Your task to perform on an android device: Search for "logitech g910" on walmart.com, select the first entry, and add it to the cart. Image 0: 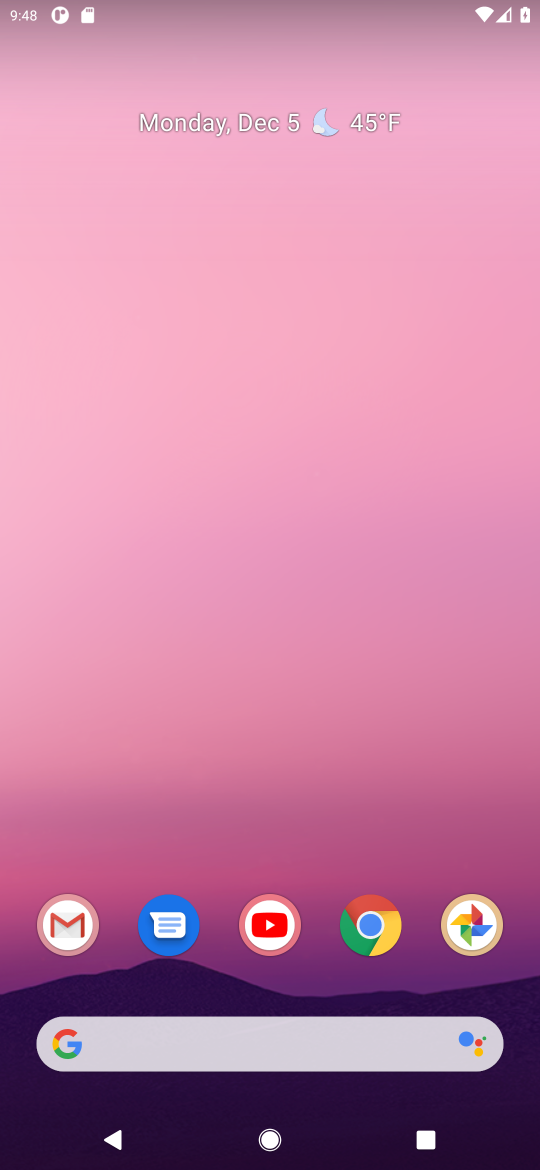
Step 0: click (375, 929)
Your task to perform on an android device: Search for "logitech g910" on walmart.com, select the first entry, and add it to the cart. Image 1: 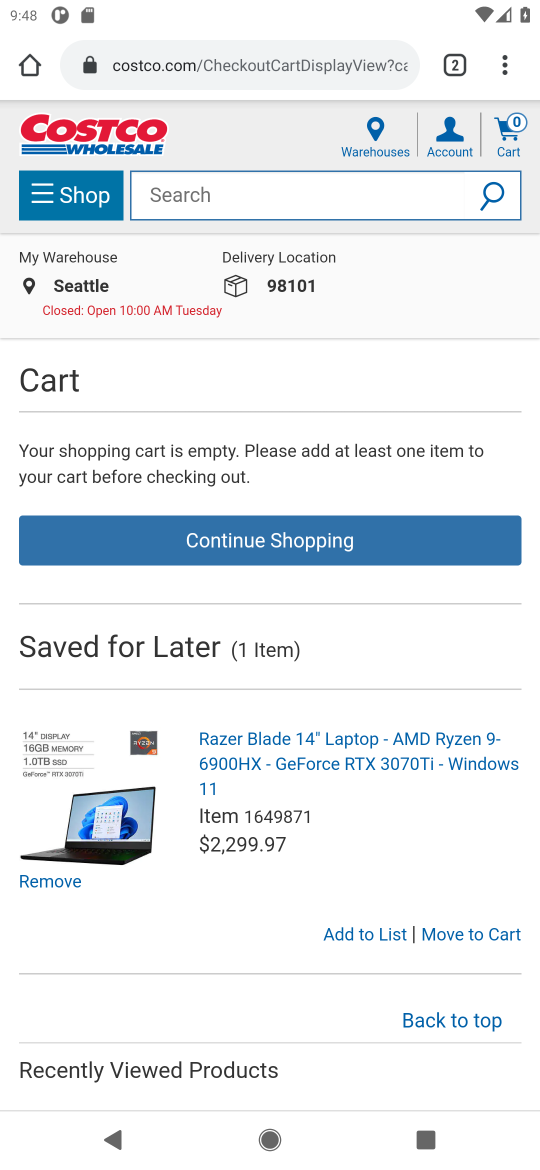
Step 1: click (249, 68)
Your task to perform on an android device: Search for "logitech g910" on walmart.com, select the first entry, and add it to the cart. Image 2: 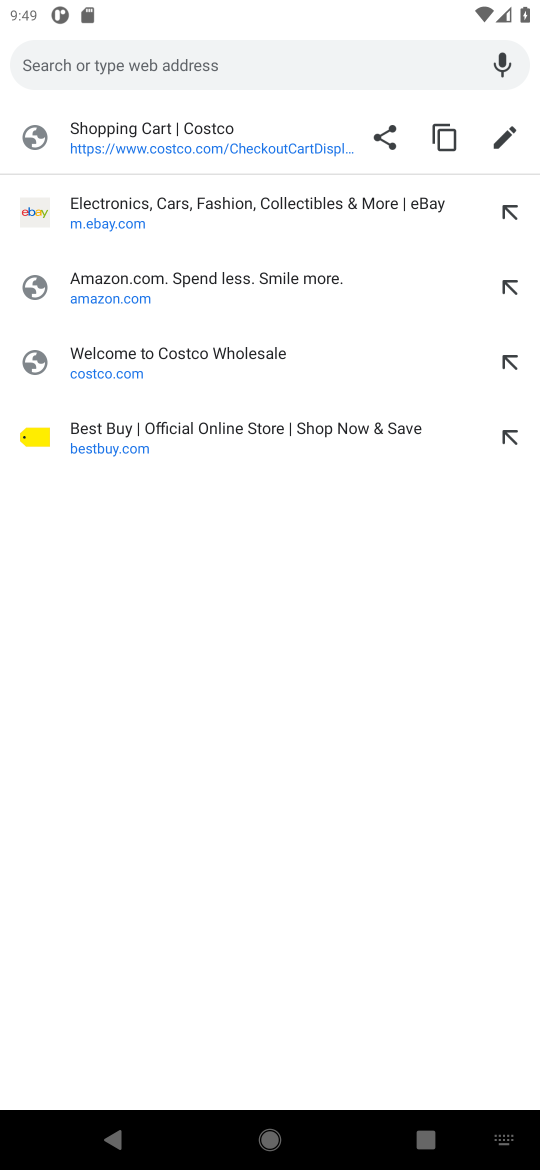
Step 2: type "walmart.com"
Your task to perform on an android device: Search for "logitech g910" on walmart.com, select the first entry, and add it to the cart. Image 3: 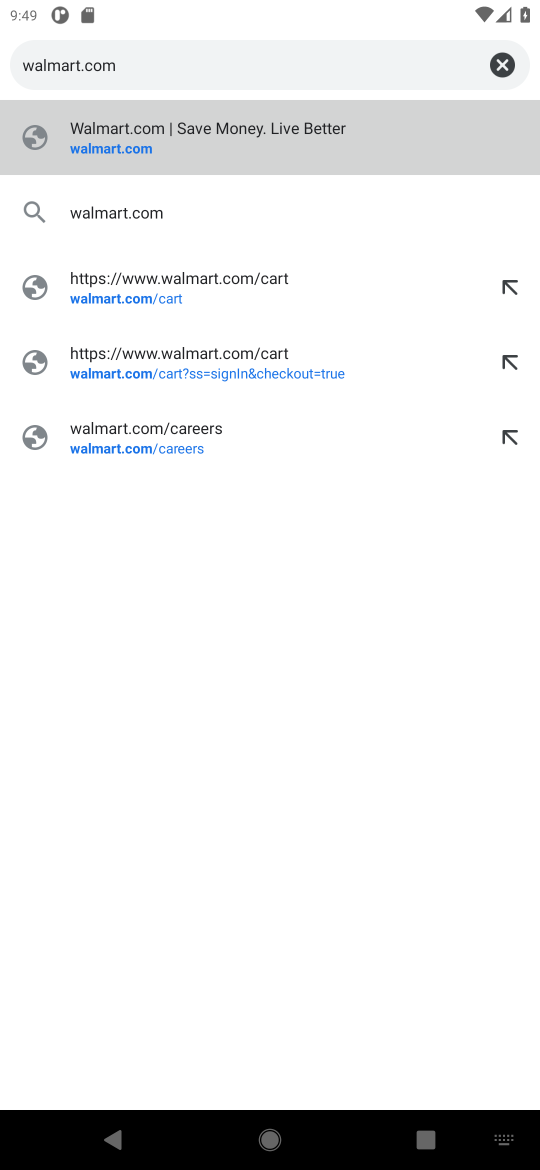
Step 3: click (117, 164)
Your task to perform on an android device: Search for "logitech g910" on walmart.com, select the first entry, and add it to the cart. Image 4: 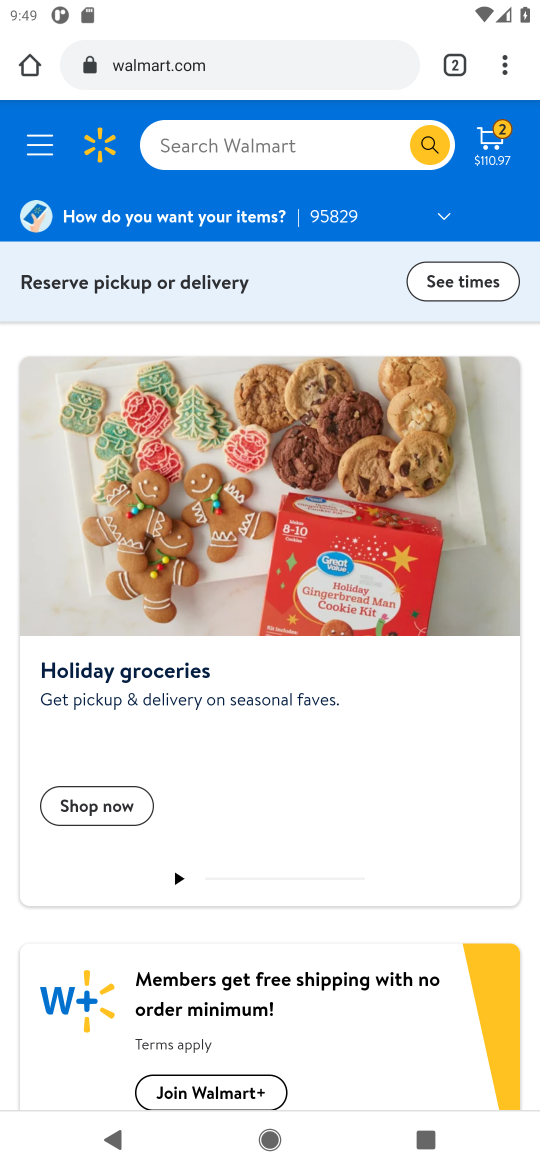
Step 4: click (201, 154)
Your task to perform on an android device: Search for "logitech g910" on walmart.com, select the first entry, and add it to the cart. Image 5: 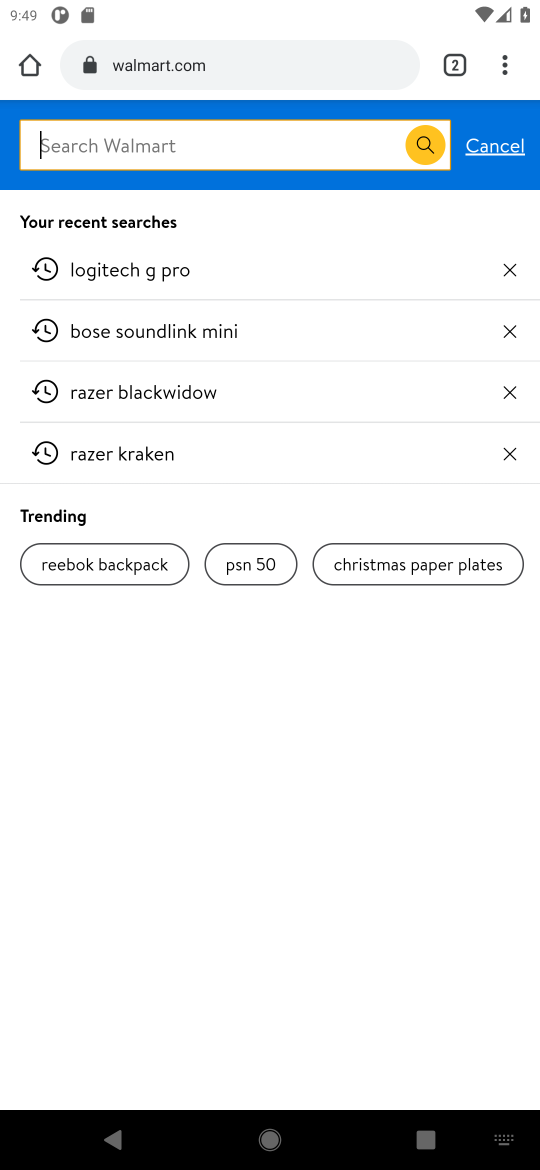
Step 5: type "logitech g910"
Your task to perform on an android device: Search for "logitech g910" on walmart.com, select the first entry, and add it to the cart. Image 6: 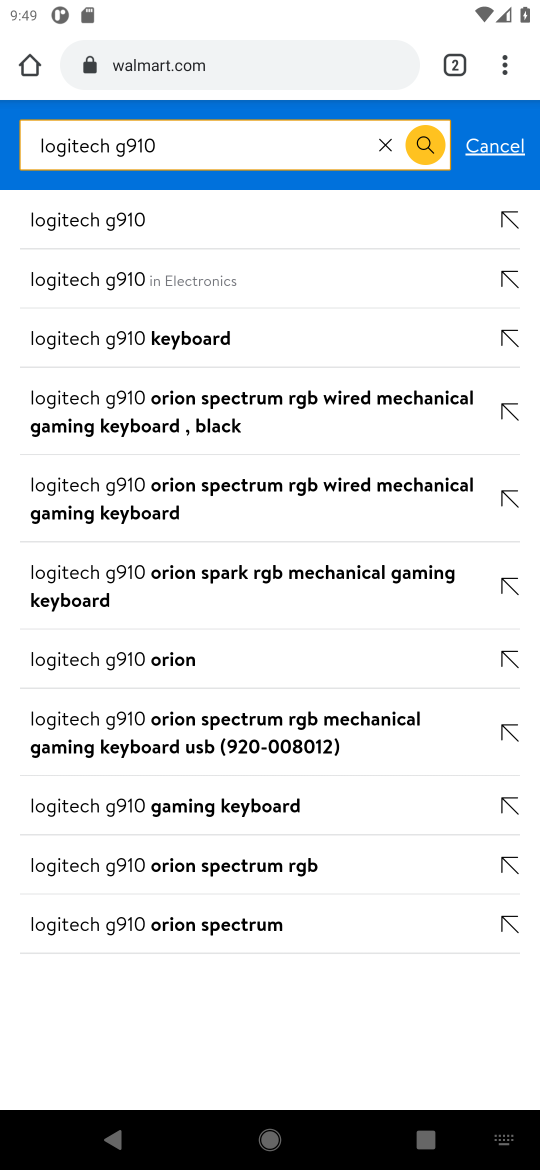
Step 6: click (96, 232)
Your task to perform on an android device: Search for "logitech g910" on walmart.com, select the first entry, and add it to the cart. Image 7: 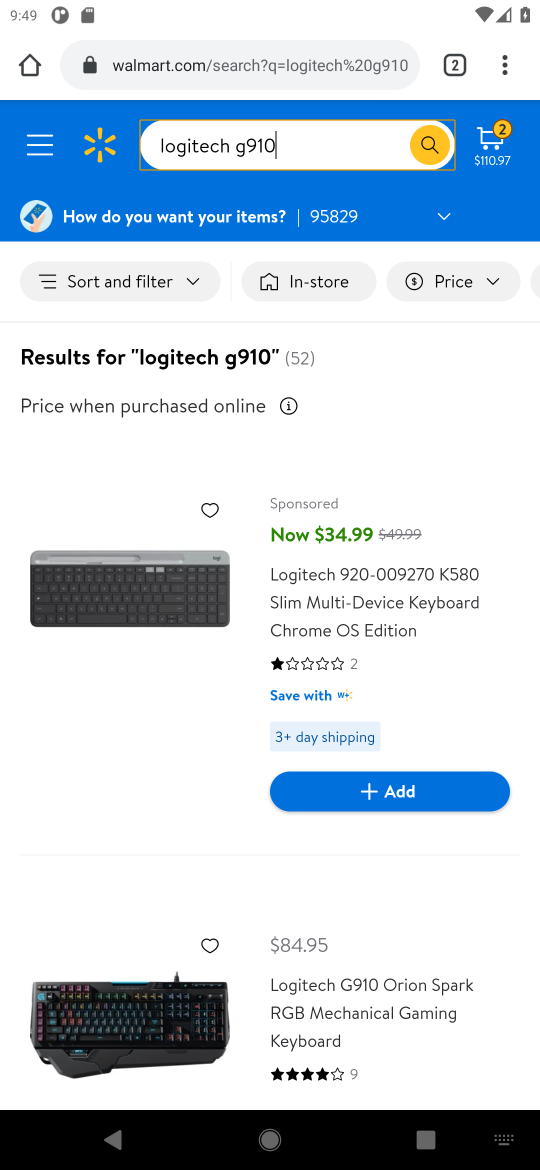
Step 7: task complete